Your task to perform on an android device: Search for usb-c on target.com, select the first entry, add it to the cart, then select checkout. Image 0: 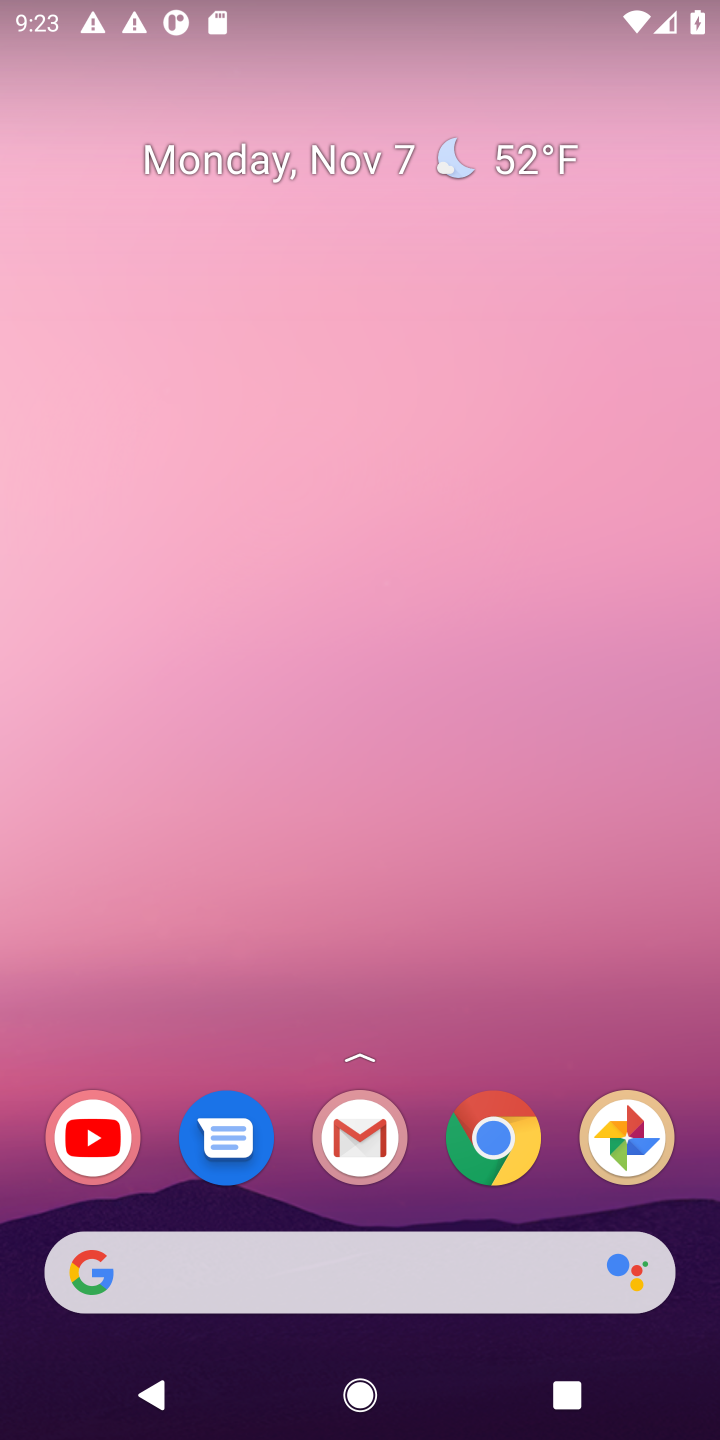
Step 0: click (493, 1147)
Your task to perform on an android device: Search for usb-c on target.com, select the first entry, add it to the cart, then select checkout. Image 1: 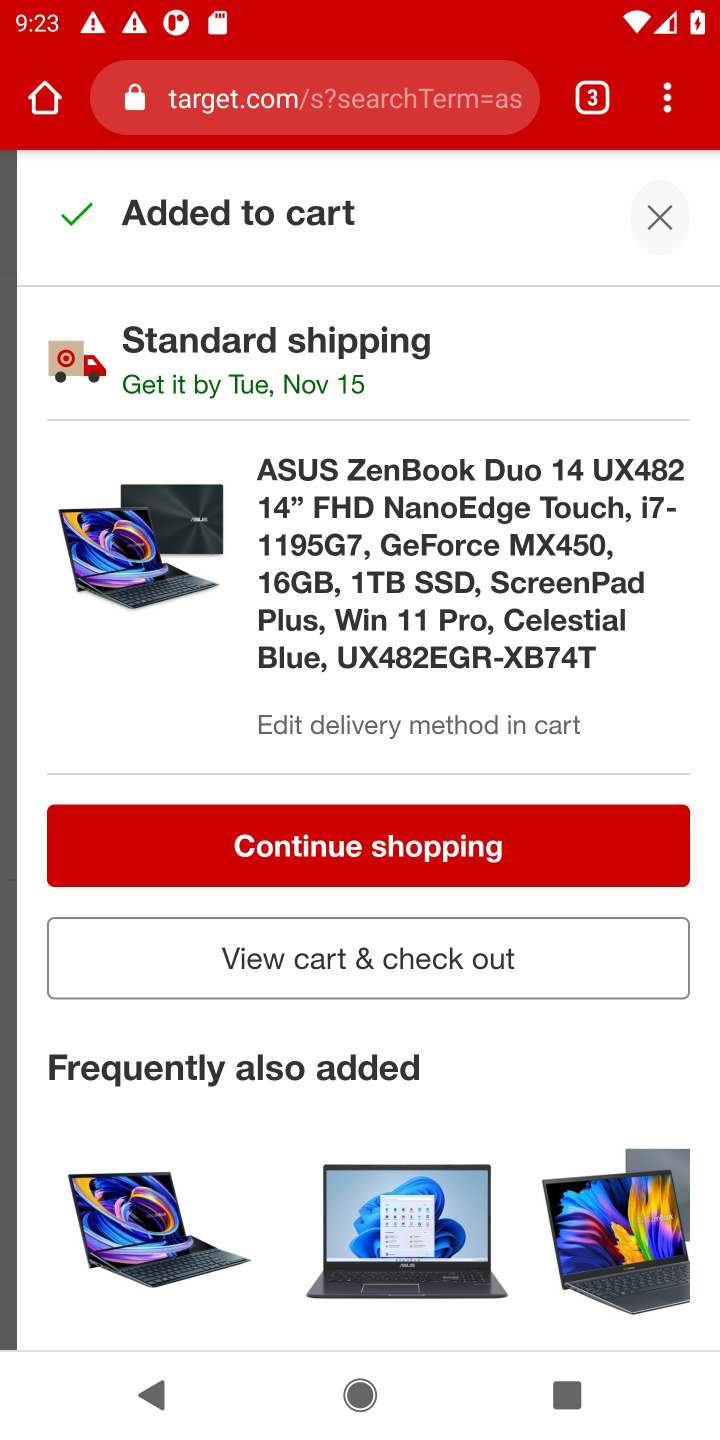
Step 1: click (658, 211)
Your task to perform on an android device: Search for usb-c on target.com, select the first entry, add it to the cart, then select checkout. Image 2: 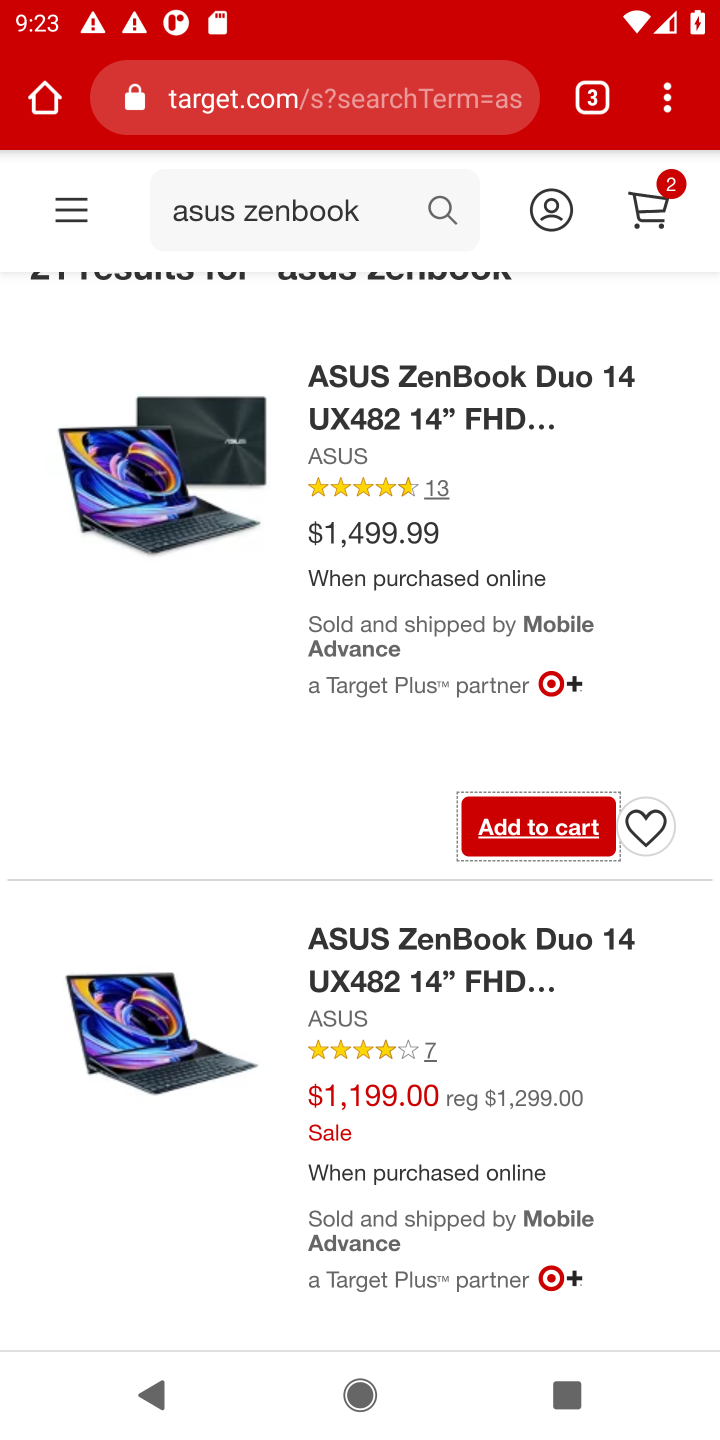
Step 2: click (297, 212)
Your task to perform on an android device: Search for usb-c on target.com, select the first entry, add it to the cart, then select checkout. Image 3: 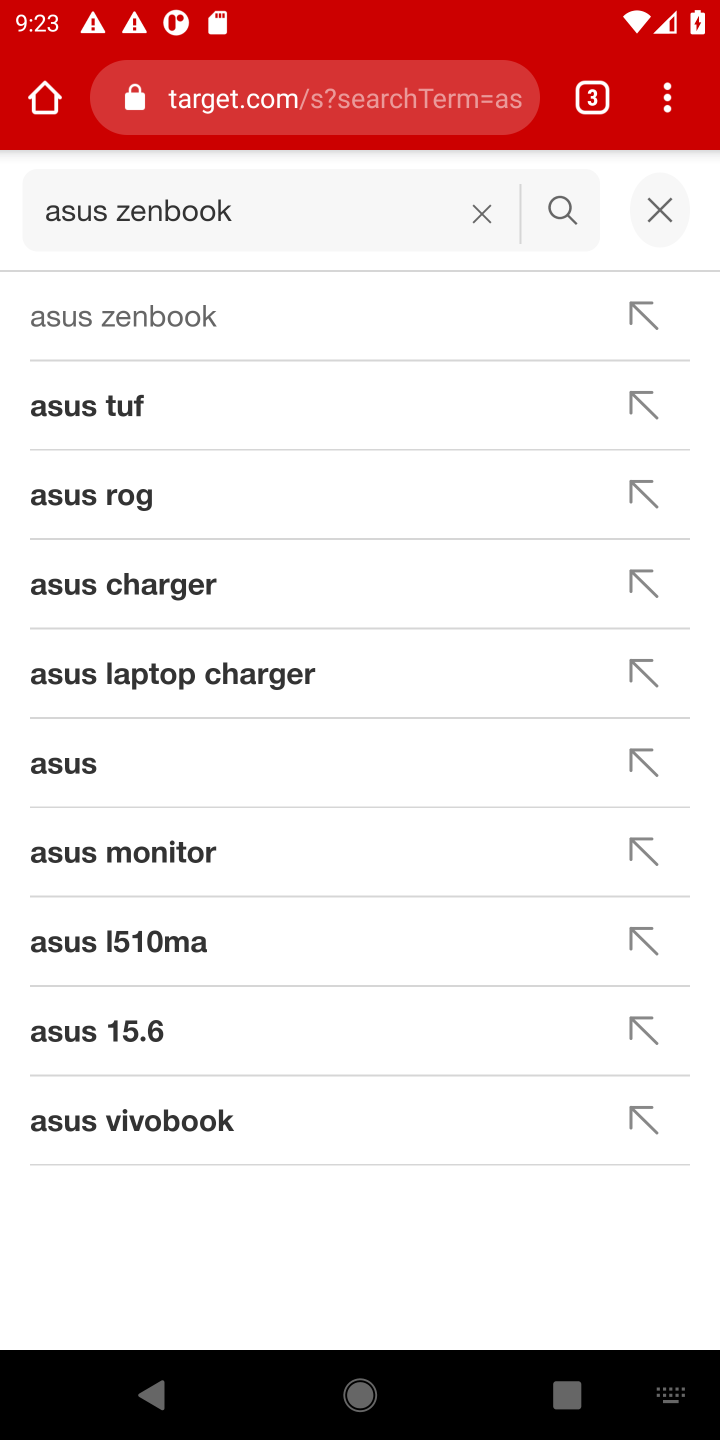
Step 3: click (479, 205)
Your task to perform on an android device: Search for usb-c on target.com, select the first entry, add it to the cart, then select checkout. Image 4: 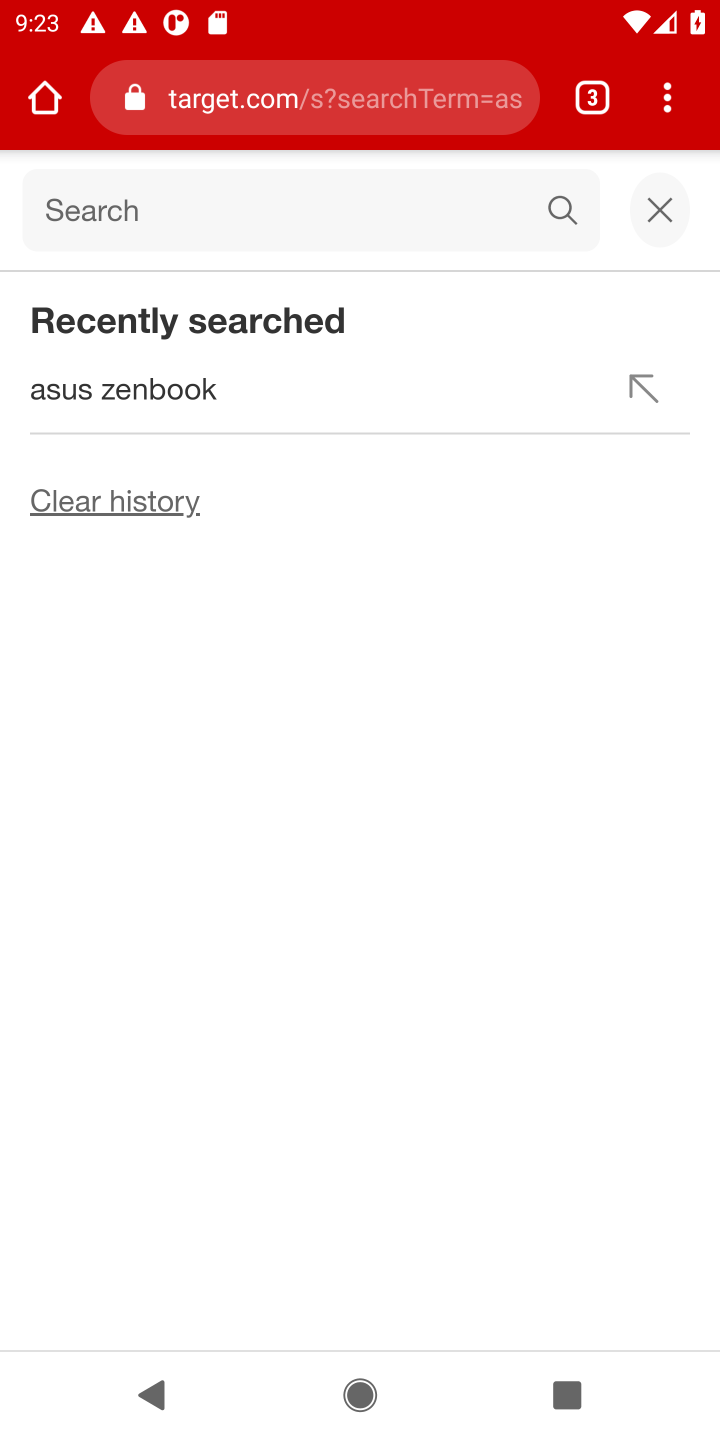
Step 4: type "usb-c "
Your task to perform on an android device: Search for usb-c on target.com, select the first entry, add it to the cart, then select checkout. Image 5: 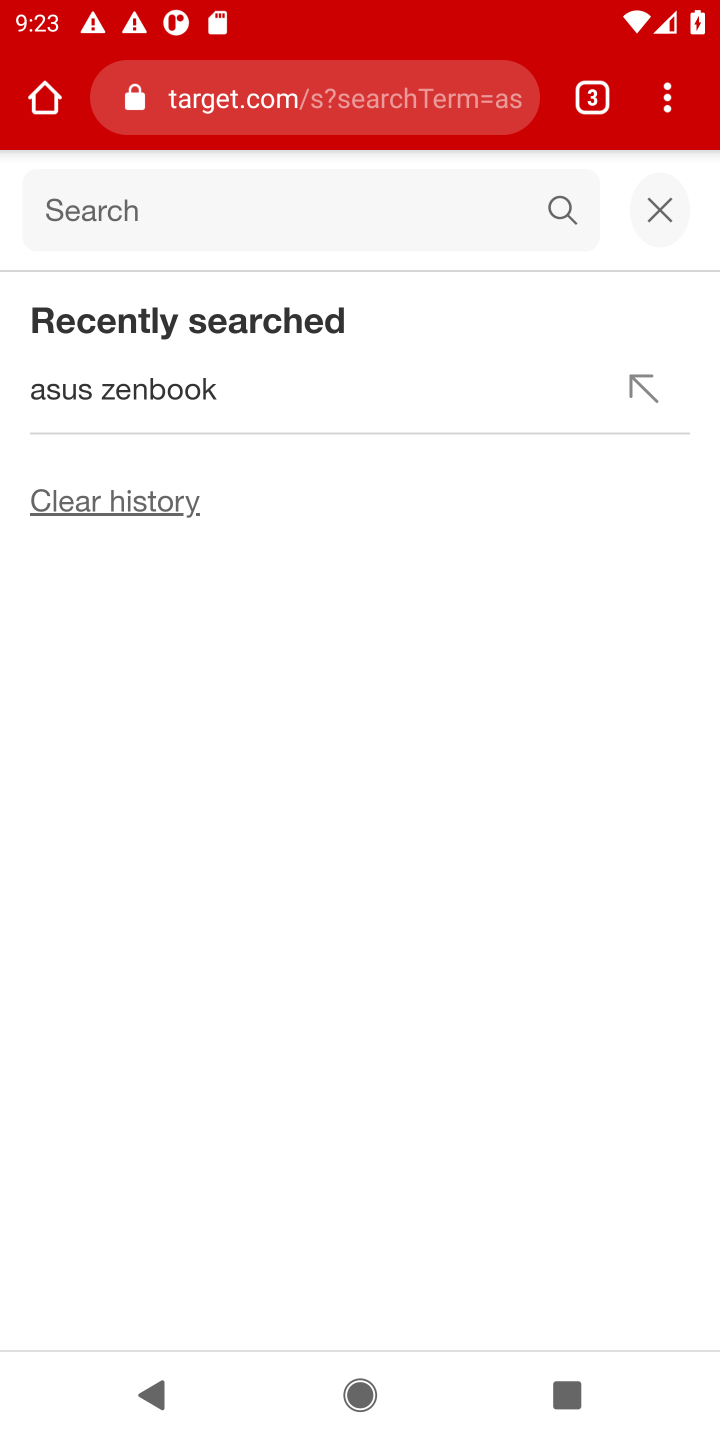
Step 5: type "usb-c "
Your task to perform on an android device: Search for usb-c on target.com, select the first entry, add it to the cart, then select checkout. Image 6: 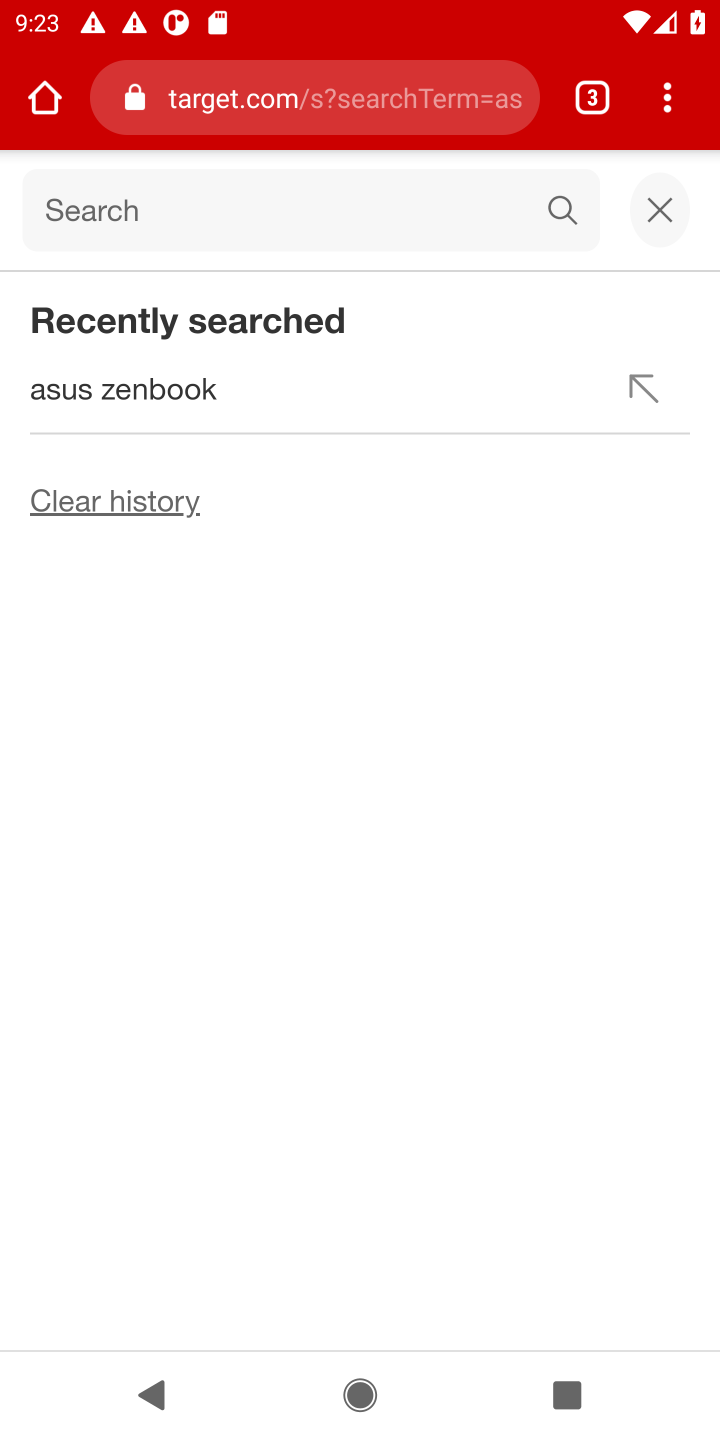
Step 6: click (122, 200)
Your task to perform on an android device: Search for usb-c on target.com, select the first entry, add it to the cart, then select checkout. Image 7: 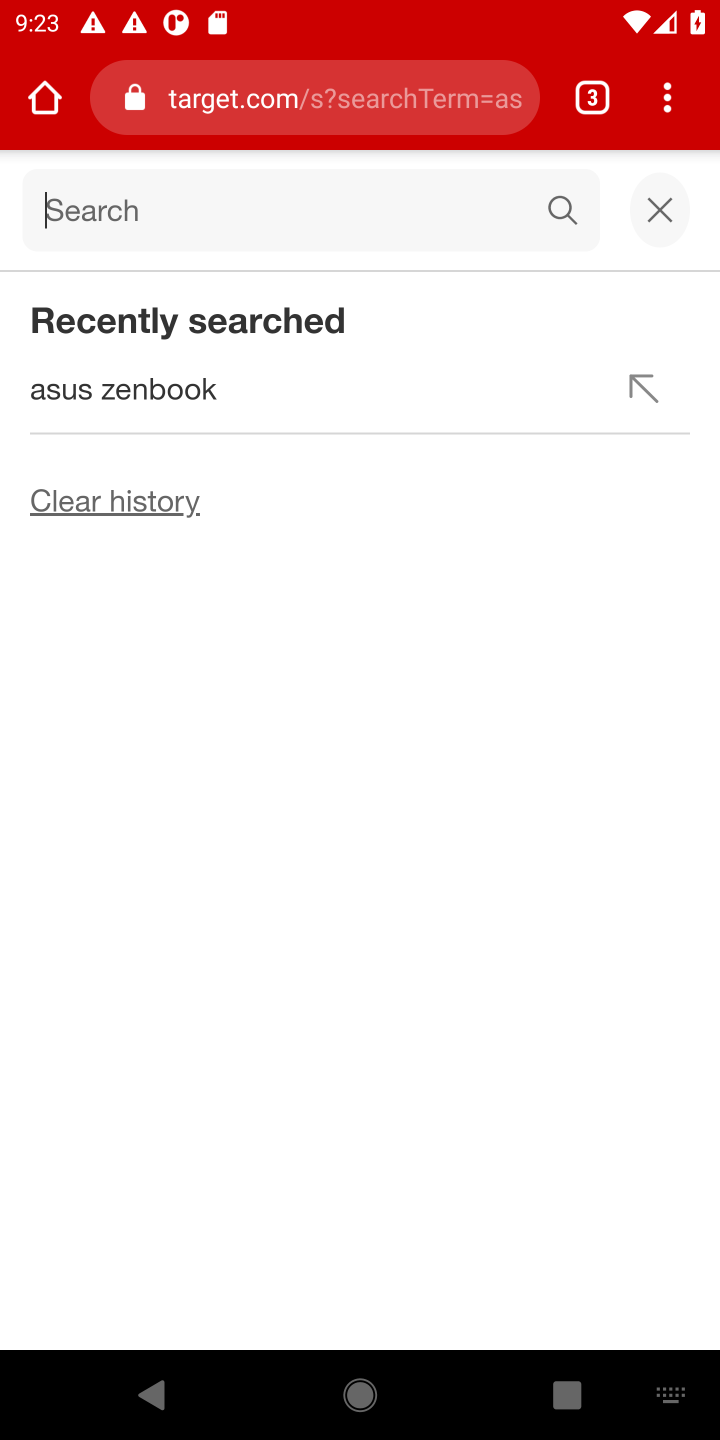
Step 7: type "usb-c "
Your task to perform on an android device: Search for usb-c on target.com, select the first entry, add it to the cart, then select checkout. Image 8: 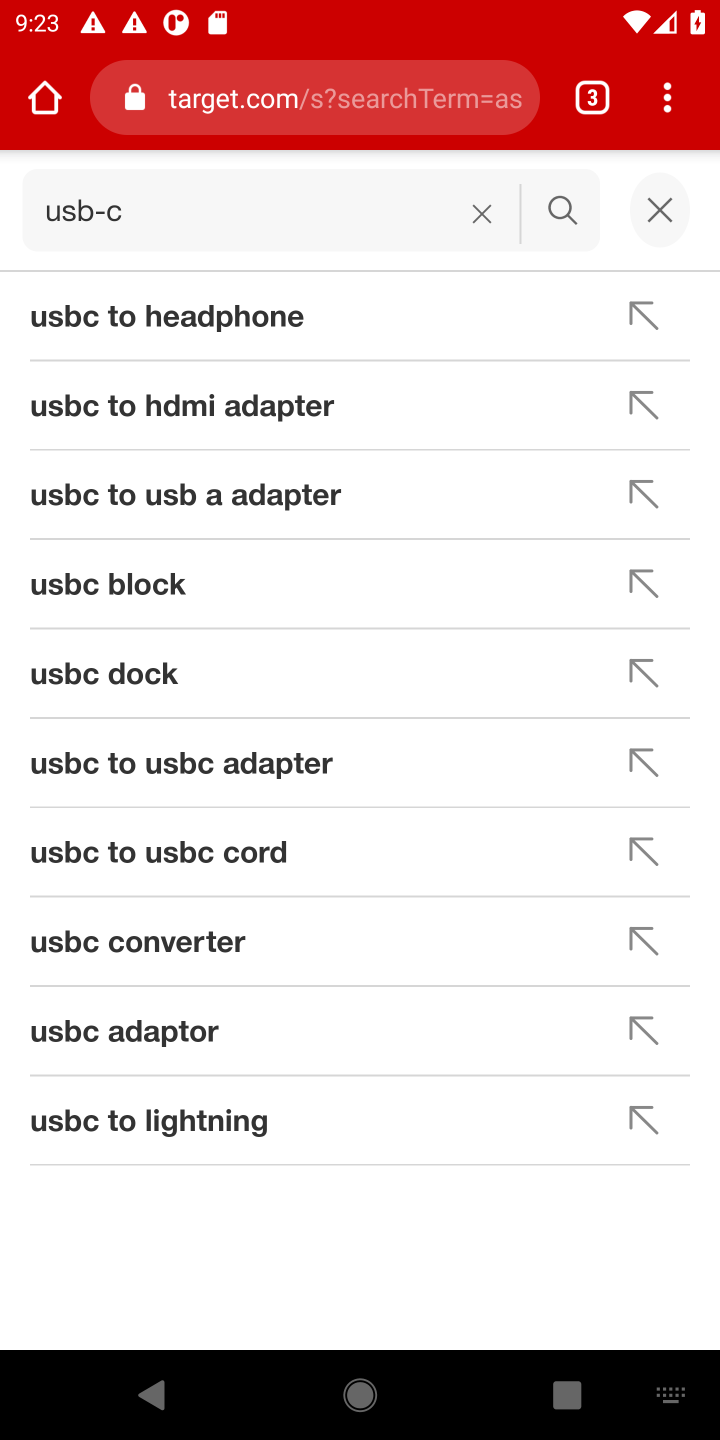
Step 8: click (170, 1029)
Your task to perform on an android device: Search for usb-c on target.com, select the first entry, add it to the cart, then select checkout. Image 9: 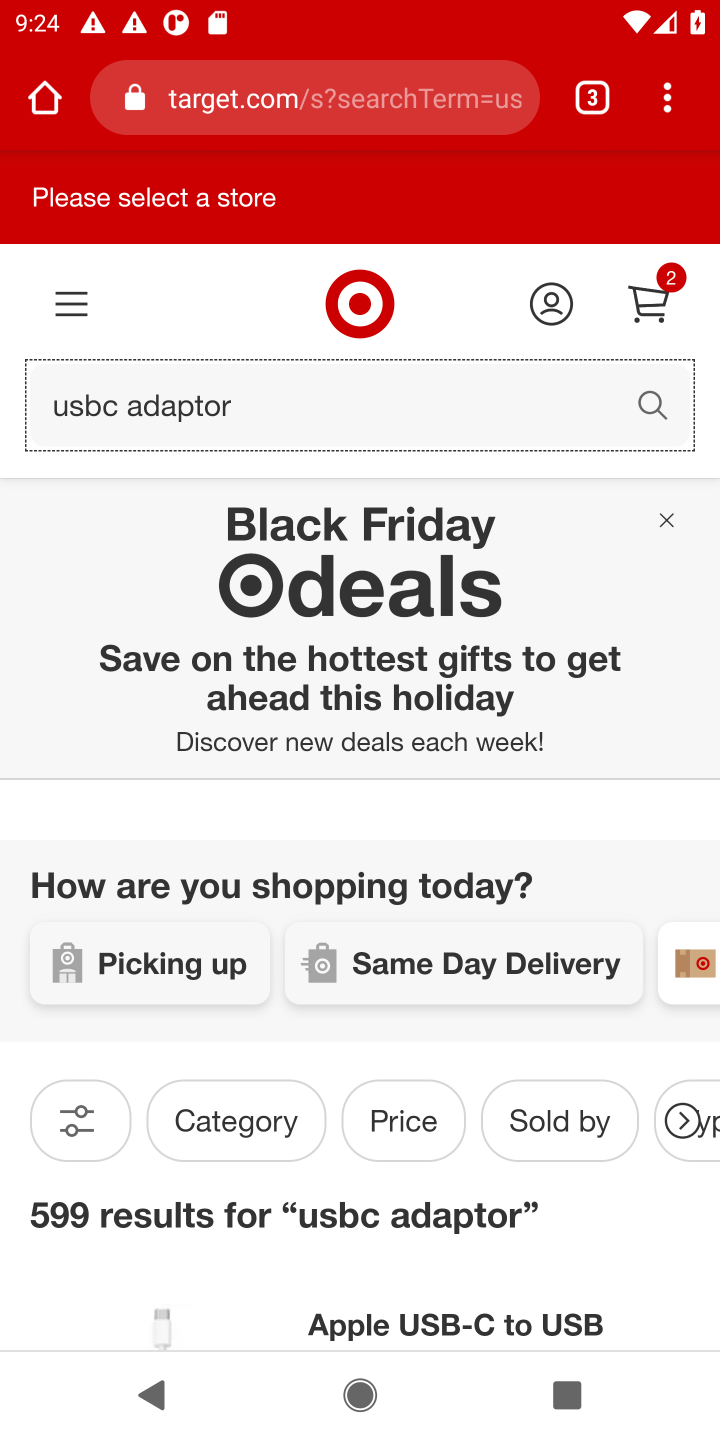
Step 9: drag from (448, 1140) to (406, 436)
Your task to perform on an android device: Search for usb-c on target.com, select the first entry, add it to the cart, then select checkout. Image 10: 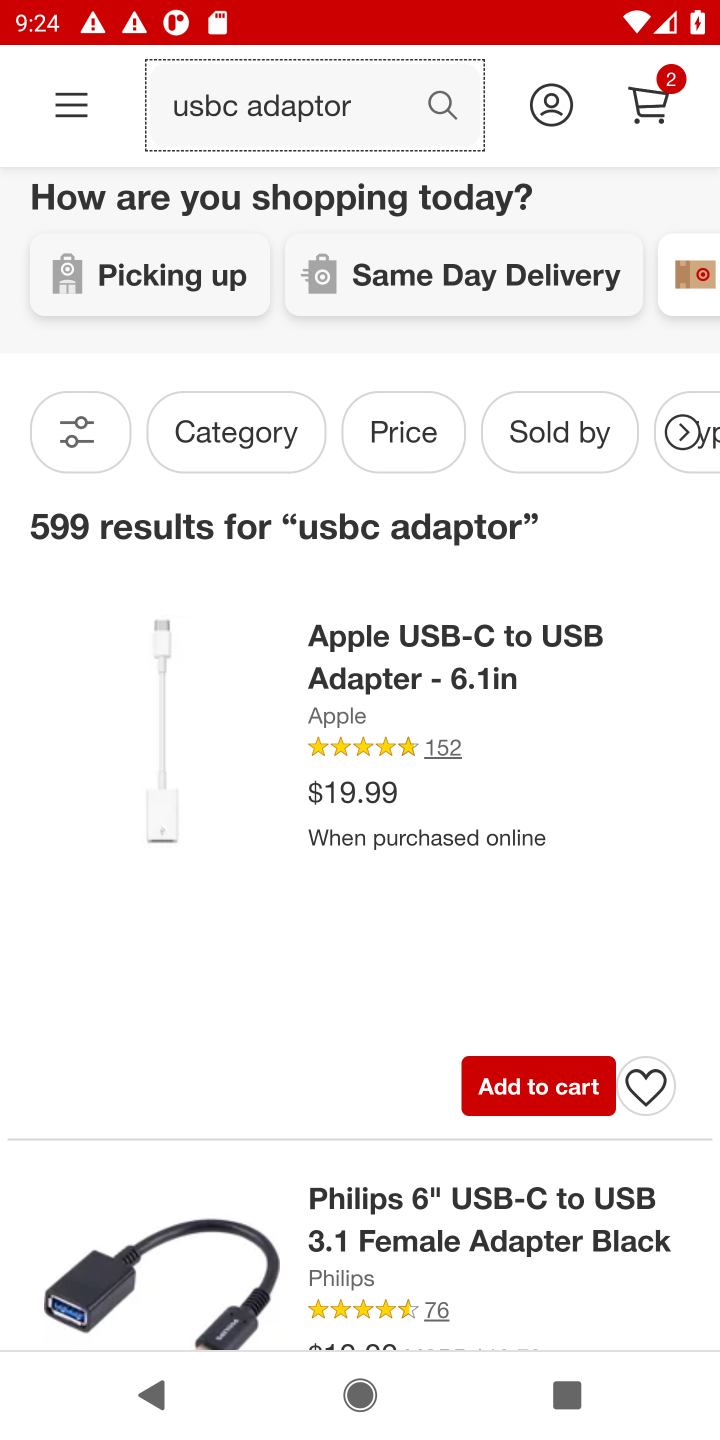
Step 10: click (518, 1074)
Your task to perform on an android device: Search for usb-c on target.com, select the first entry, add it to the cart, then select checkout. Image 11: 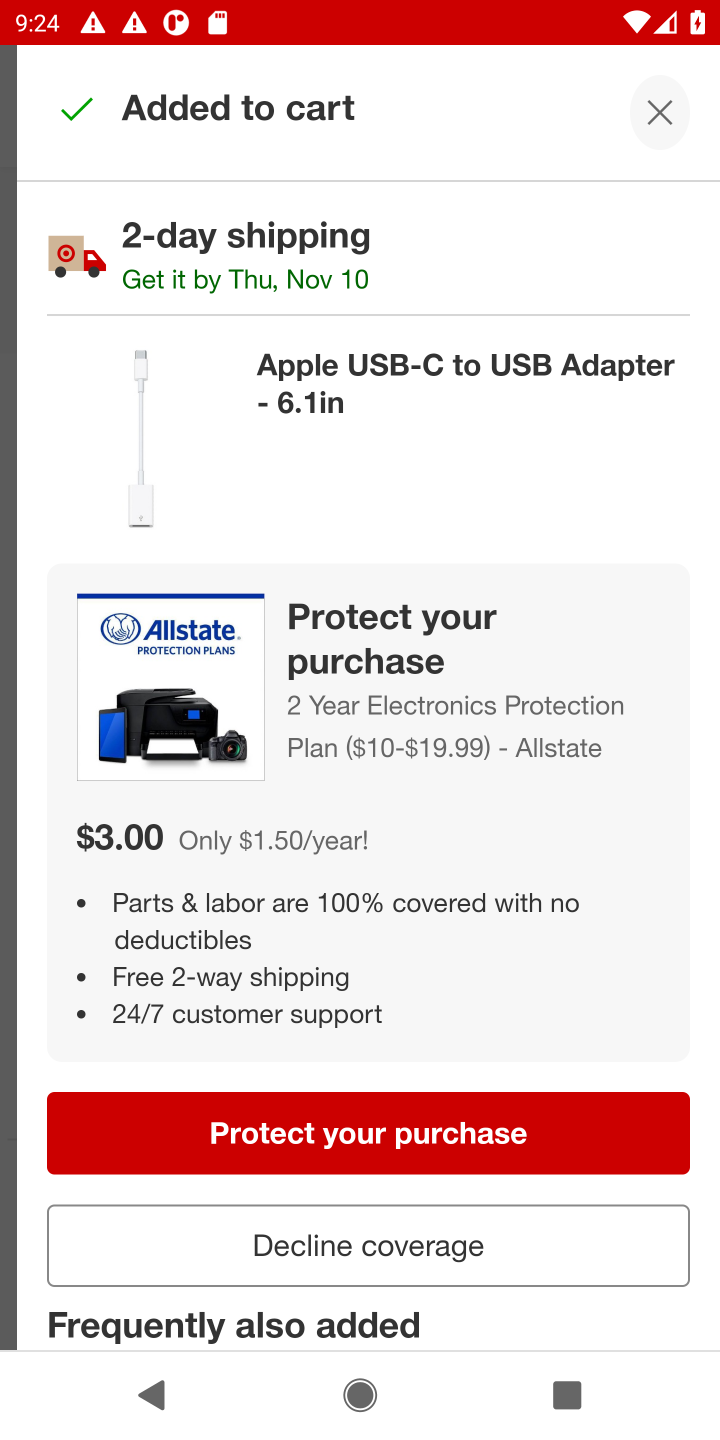
Step 11: click (386, 1254)
Your task to perform on an android device: Search for usb-c on target.com, select the first entry, add it to the cart, then select checkout. Image 12: 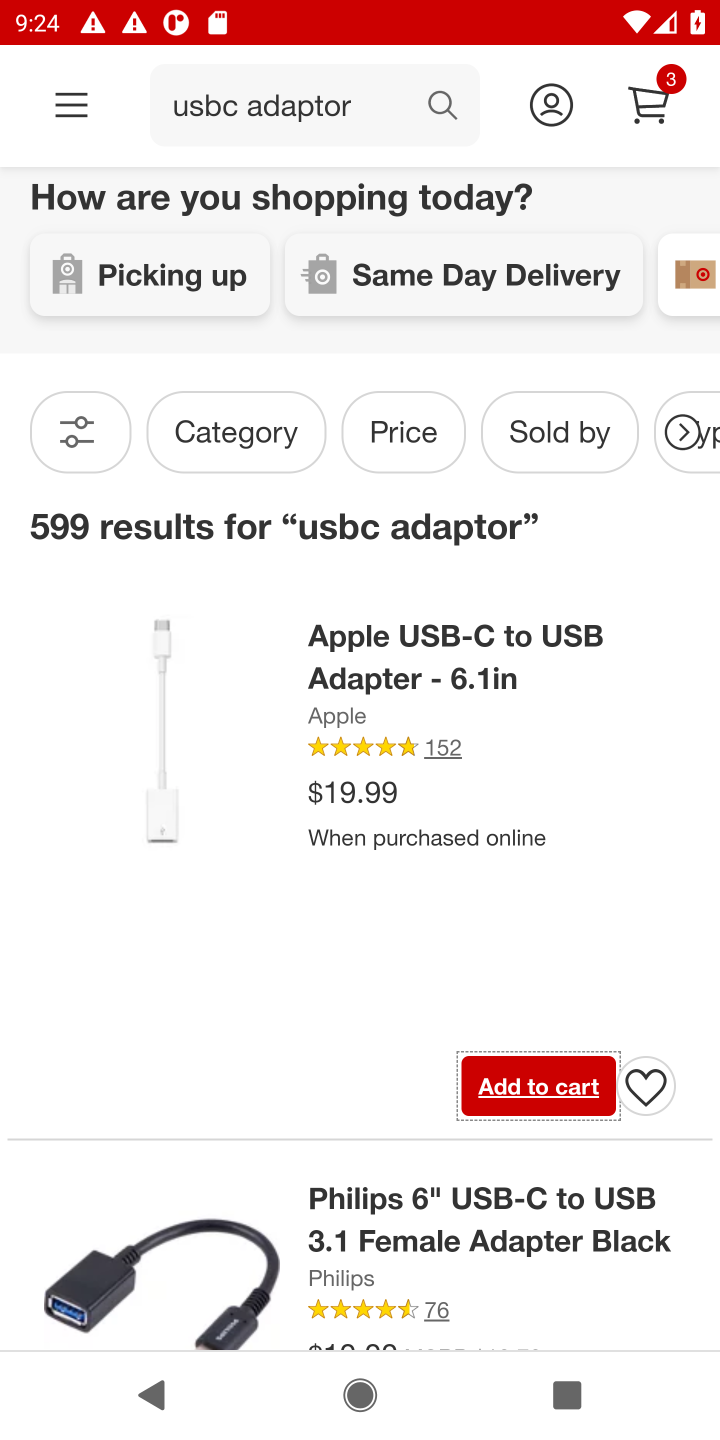
Step 12: click (567, 1084)
Your task to perform on an android device: Search for usb-c on target.com, select the first entry, add it to the cart, then select checkout. Image 13: 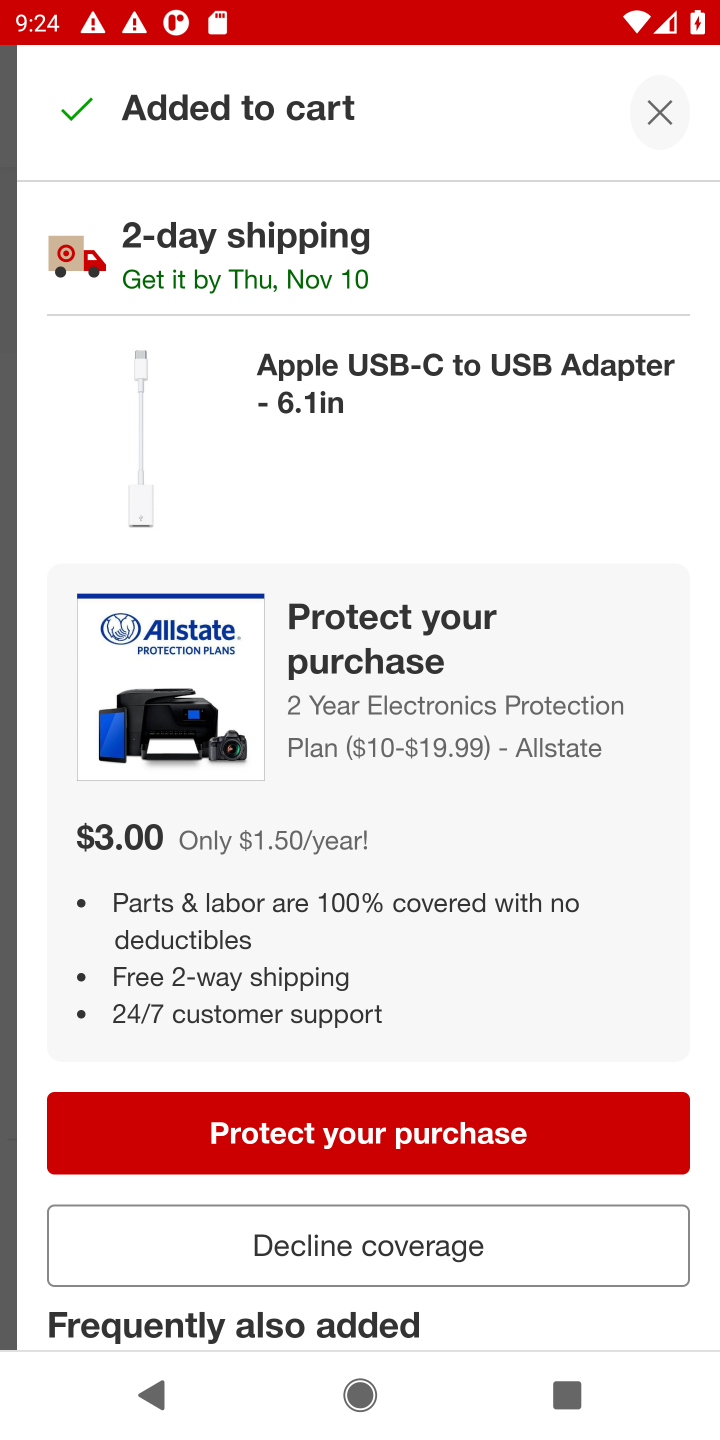
Step 13: click (513, 1247)
Your task to perform on an android device: Search for usb-c on target.com, select the first entry, add it to the cart, then select checkout. Image 14: 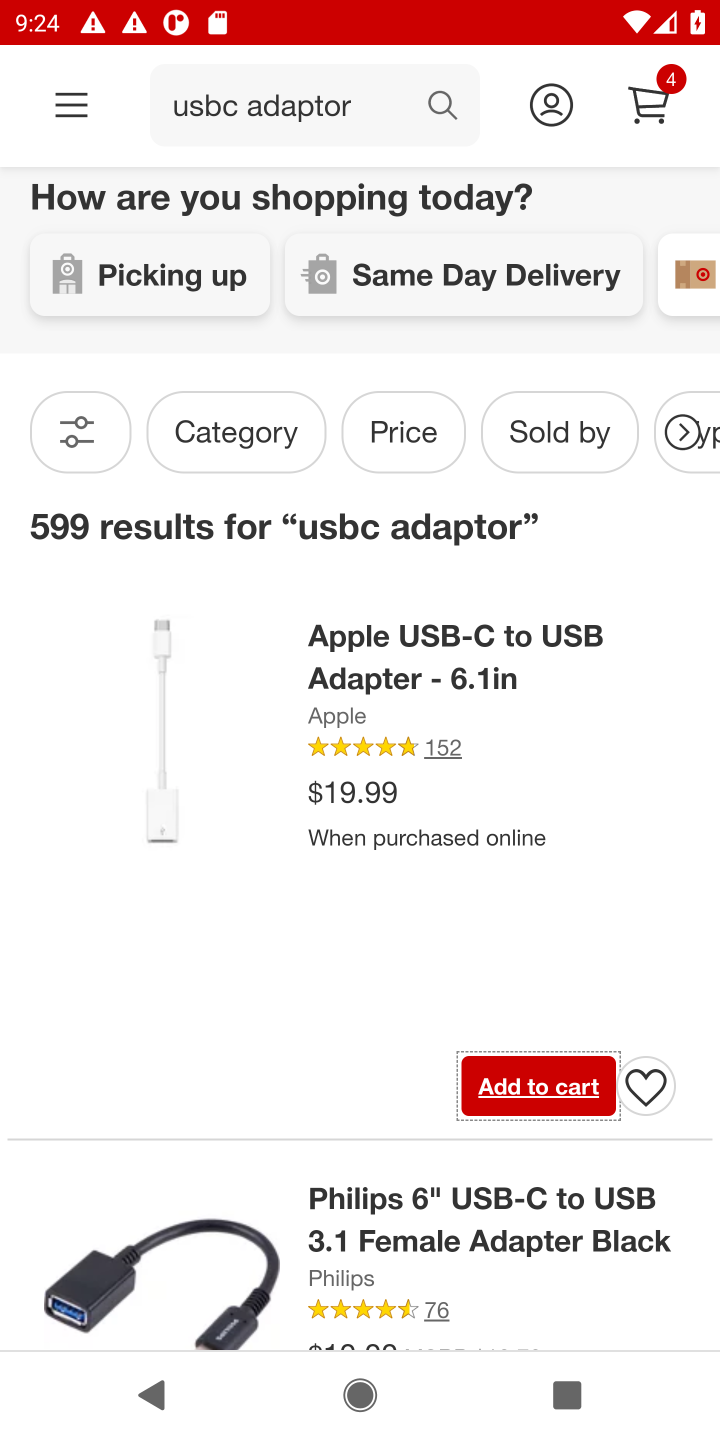
Step 14: click (664, 98)
Your task to perform on an android device: Search for usb-c on target.com, select the first entry, add it to the cart, then select checkout. Image 15: 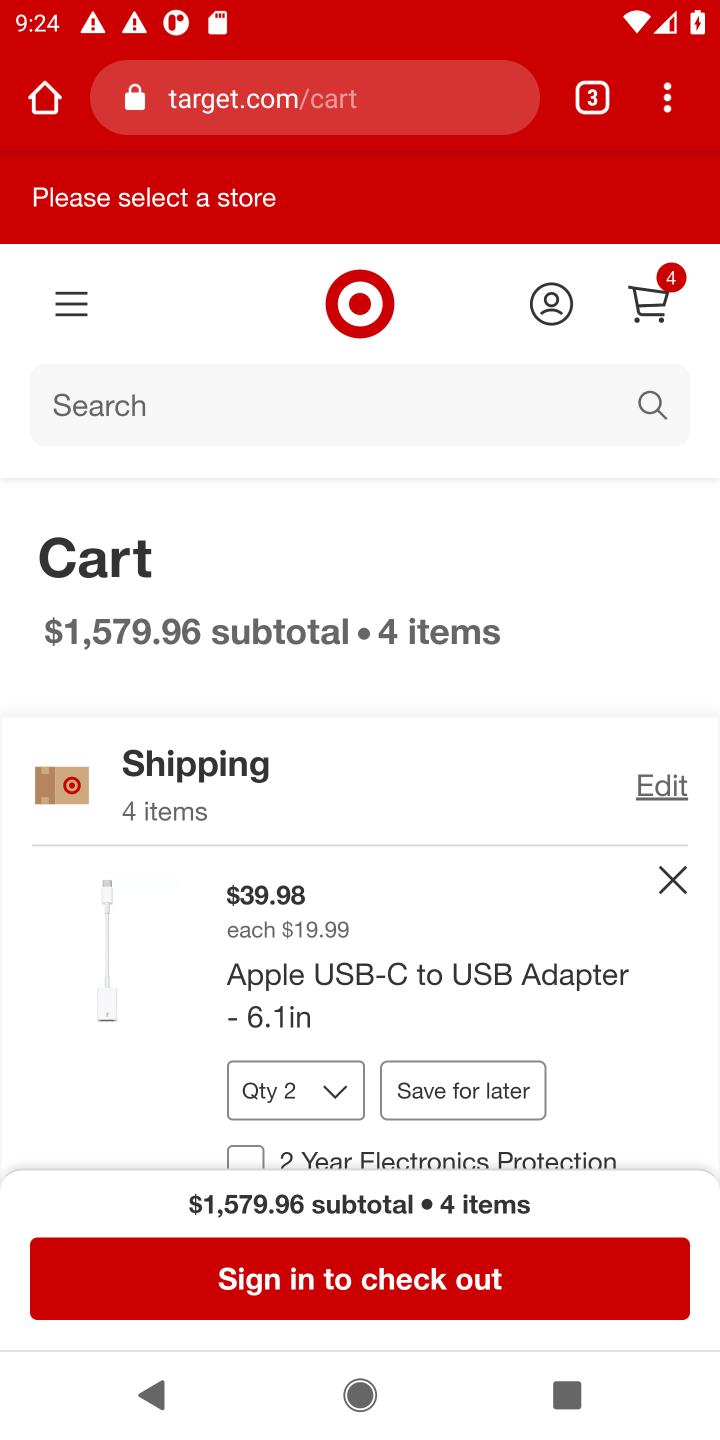
Step 15: click (407, 1262)
Your task to perform on an android device: Search for usb-c on target.com, select the first entry, add it to the cart, then select checkout. Image 16: 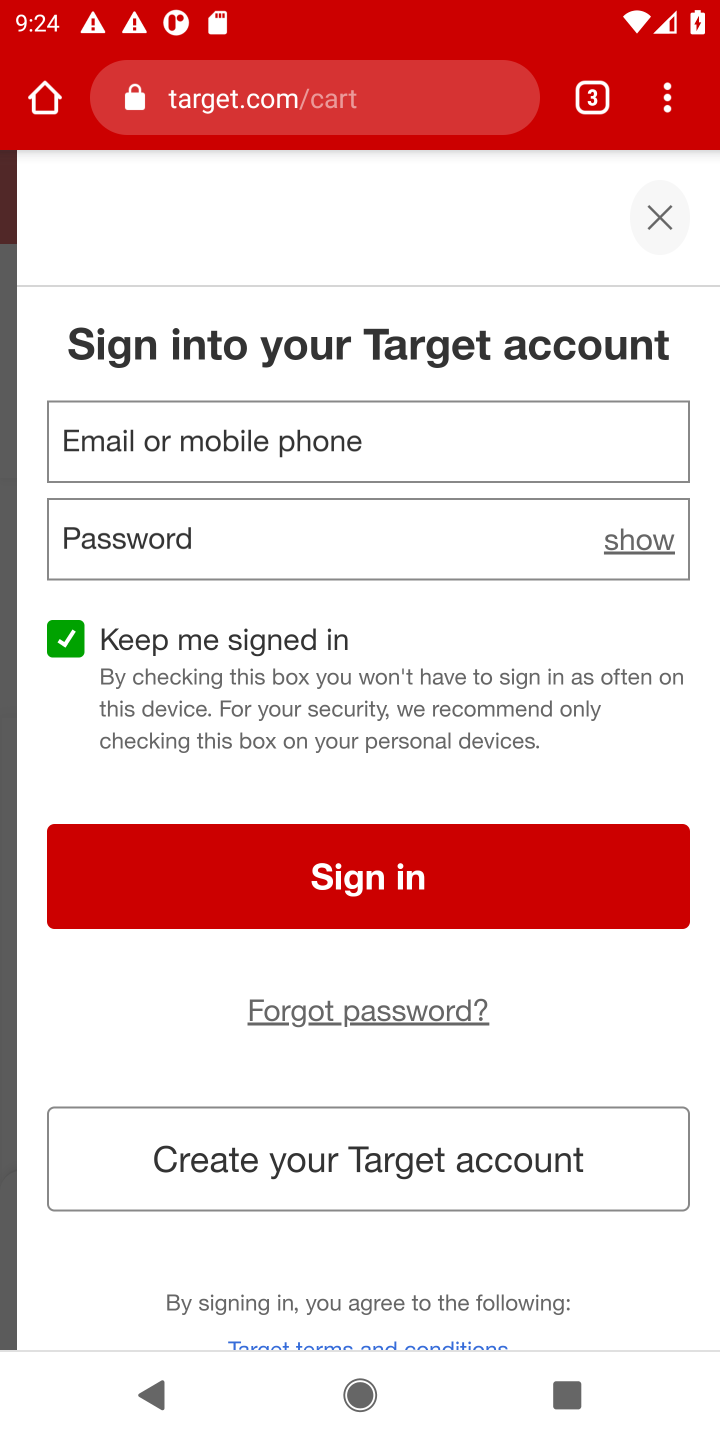
Step 16: task complete